Your task to perform on an android device: Show me popular games on the Play Store Image 0: 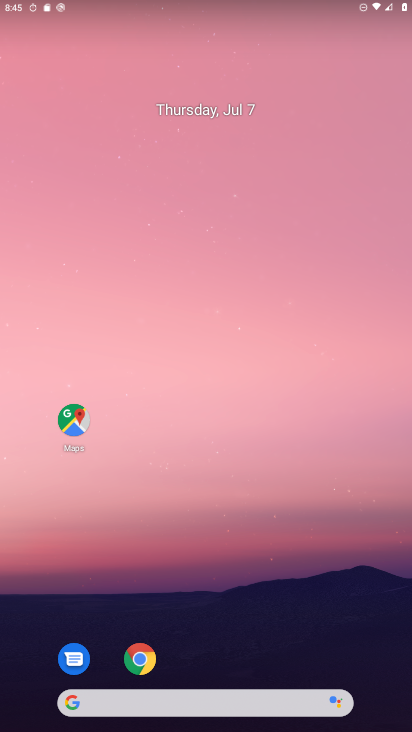
Step 0: drag from (376, 674) to (231, 18)
Your task to perform on an android device: Show me popular games on the Play Store Image 1: 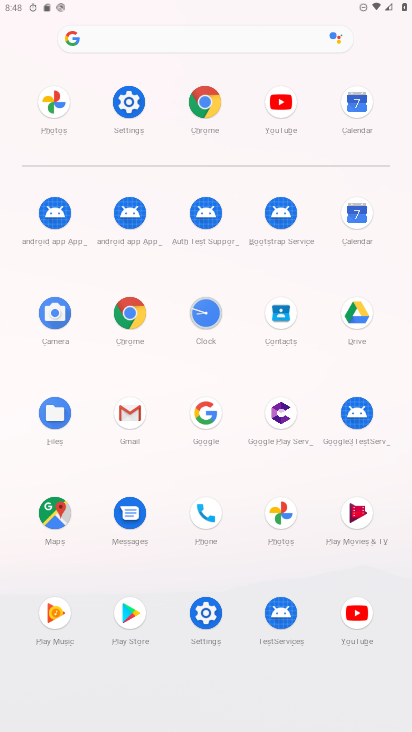
Step 1: click (138, 602)
Your task to perform on an android device: Show me popular games on the Play Store Image 2: 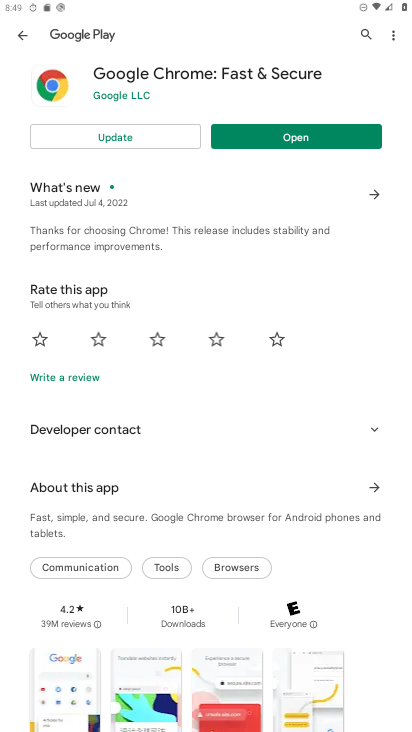
Step 2: press back button
Your task to perform on an android device: Show me popular games on the Play Store Image 3: 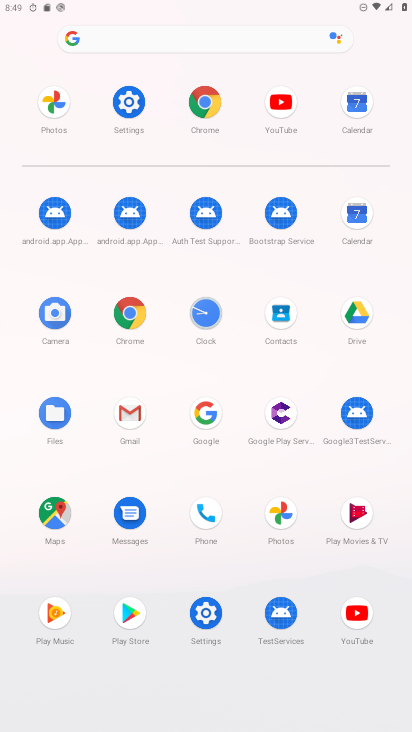
Step 3: click (121, 622)
Your task to perform on an android device: Show me popular games on the Play Store Image 4: 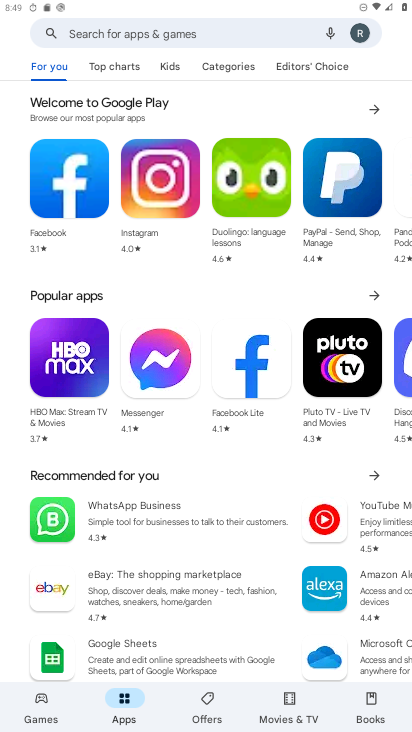
Step 4: click (138, 30)
Your task to perform on an android device: Show me popular games on the Play Store Image 5: 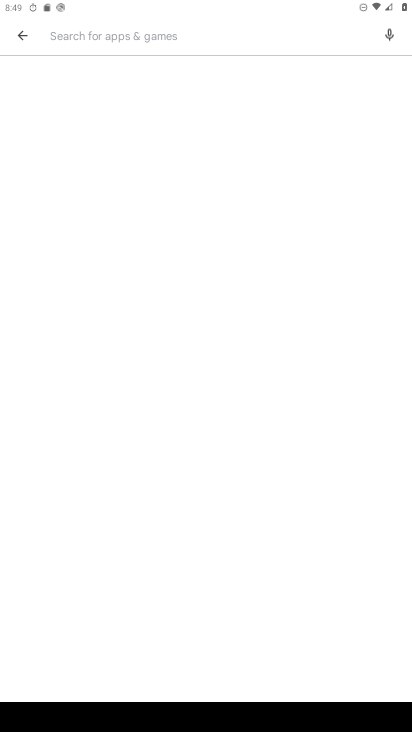
Step 5: task complete